Your task to perform on an android device: Clear all items from cart on target.com. Search for usb-a to usb-b on target.com, select the first entry, and add it to the cart. Image 0: 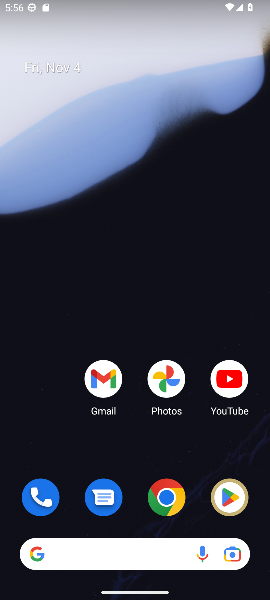
Step 0: click (169, 503)
Your task to perform on an android device: Clear all items from cart on target.com. Search for usb-a to usb-b on target.com, select the first entry, and add it to the cart. Image 1: 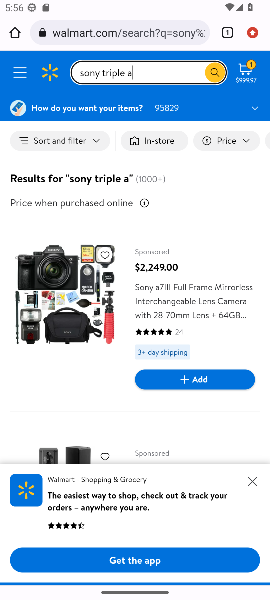
Step 1: click (120, 38)
Your task to perform on an android device: Clear all items from cart on target.com. Search for usb-a to usb-b on target.com, select the first entry, and add it to the cart. Image 2: 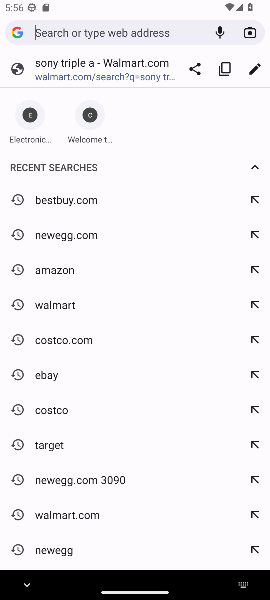
Step 2: type "target.com"
Your task to perform on an android device: Clear all items from cart on target.com. Search for usb-a to usb-b on target.com, select the first entry, and add it to the cart. Image 3: 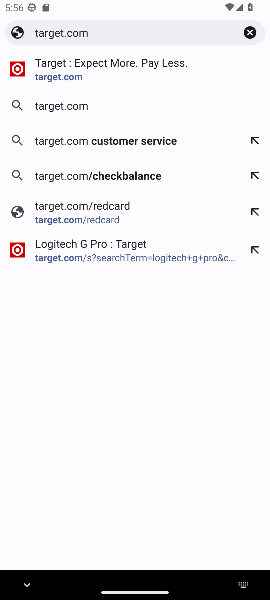
Step 3: click (57, 72)
Your task to perform on an android device: Clear all items from cart on target.com. Search for usb-a to usb-b on target.com, select the first entry, and add it to the cart. Image 4: 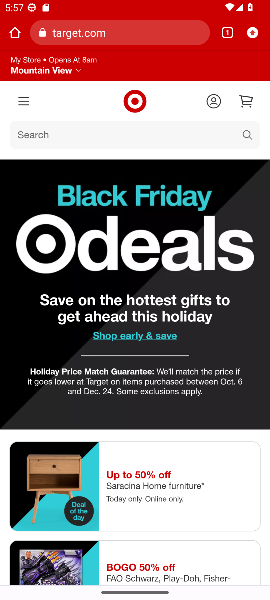
Step 4: click (248, 102)
Your task to perform on an android device: Clear all items from cart on target.com. Search for usb-a to usb-b on target.com, select the first entry, and add it to the cart. Image 5: 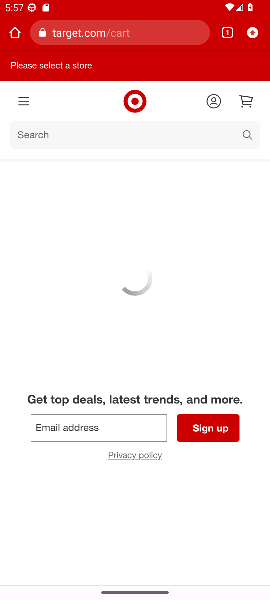
Step 5: click (250, 101)
Your task to perform on an android device: Clear all items from cart on target.com. Search for usb-a to usb-b on target.com, select the first entry, and add it to the cart. Image 6: 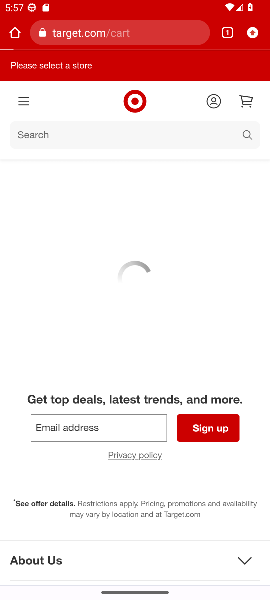
Step 6: drag from (140, 219) to (160, 118)
Your task to perform on an android device: Clear all items from cart on target.com. Search for usb-a to usb-b on target.com, select the first entry, and add it to the cart. Image 7: 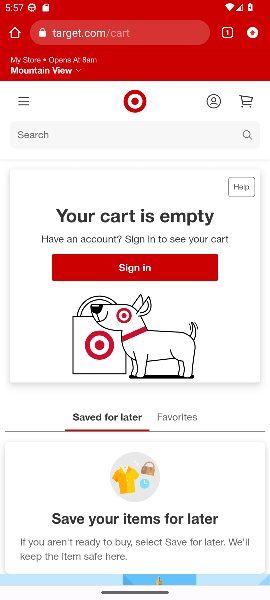
Step 7: click (245, 132)
Your task to perform on an android device: Clear all items from cart on target.com. Search for usb-a to usb-b on target.com, select the first entry, and add it to the cart. Image 8: 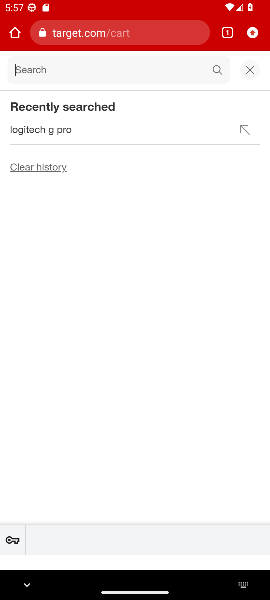
Step 8: type "usb-a to usb-b"
Your task to perform on an android device: Clear all items from cart on target.com. Search for usb-a to usb-b on target.com, select the first entry, and add it to the cart. Image 9: 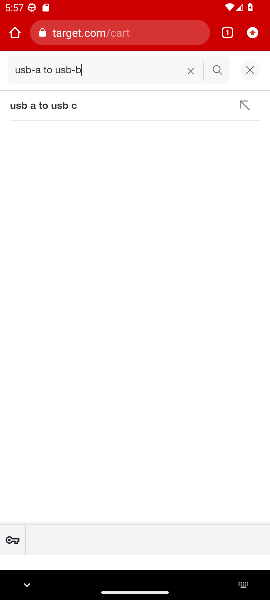
Step 9: click (217, 74)
Your task to perform on an android device: Clear all items from cart on target.com. Search for usb-a to usb-b on target.com, select the first entry, and add it to the cart. Image 10: 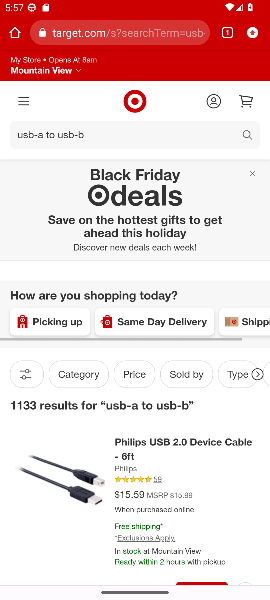
Step 10: drag from (147, 442) to (150, 265)
Your task to perform on an android device: Clear all items from cart on target.com. Search for usb-a to usb-b on target.com, select the first entry, and add it to the cart. Image 11: 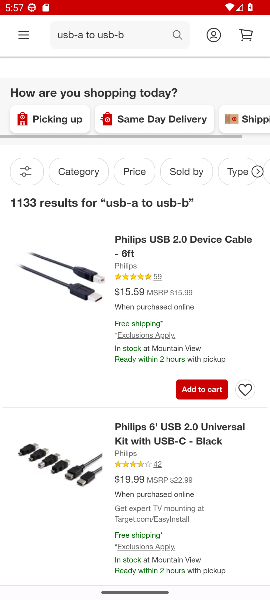
Step 11: click (80, 300)
Your task to perform on an android device: Clear all items from cart on target.com. Search for usb-a to usb-b on target.com, select the first entry, and add it to the cart. Image 12: 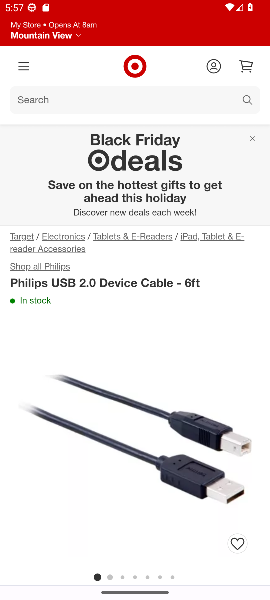
Step 12: task complete